Your task to perform on an android device: Search for Italian restaurants on Maps Image 0: 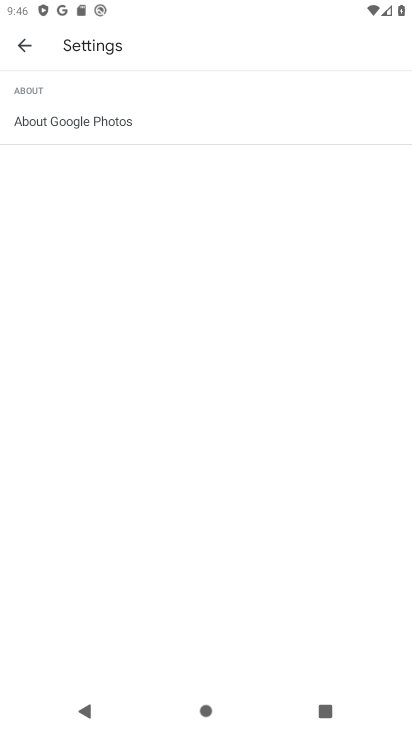
Step 0: press home button
Your task to perform on an android device: Search for Italian restaurants on Maps Image 1: 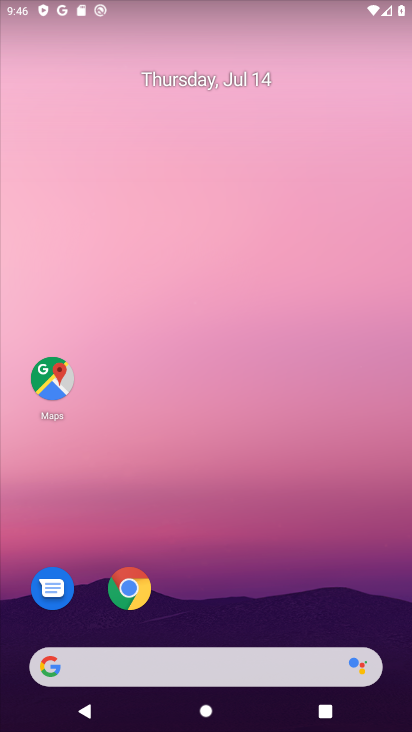
Step 1: click (52, 385)
Your task to perform on an android device: Search for Italian restaurants on Maps Image 2: 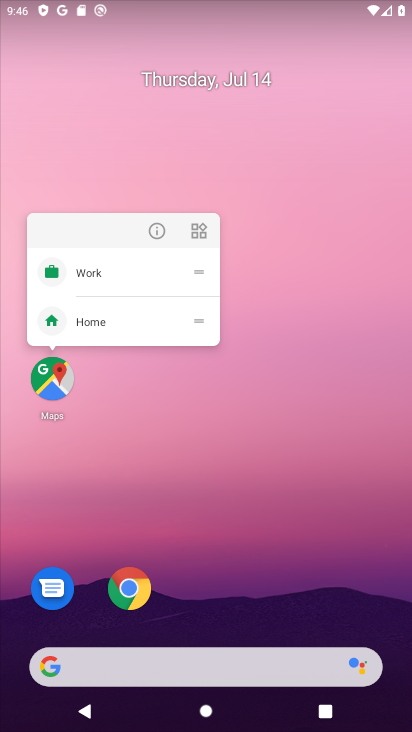
Step 2: click (52, 383)
Your task to perform on an android device: Search for Italian restaurants on Maps Image 3: 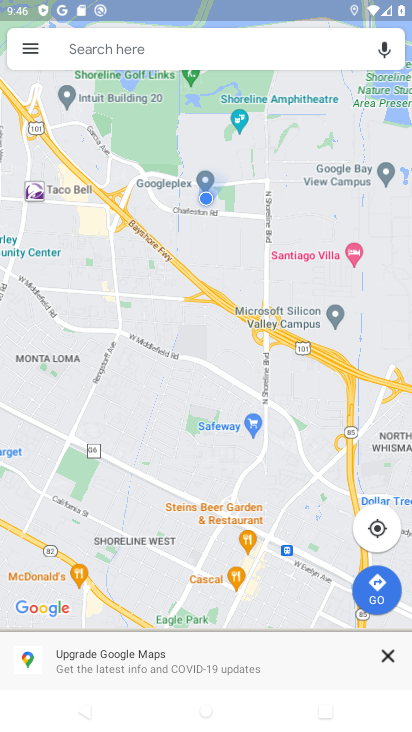
Step 3: click (215, 50)
Your task to perform on an android device: Search for Italian restaurants on Maps Image 4: 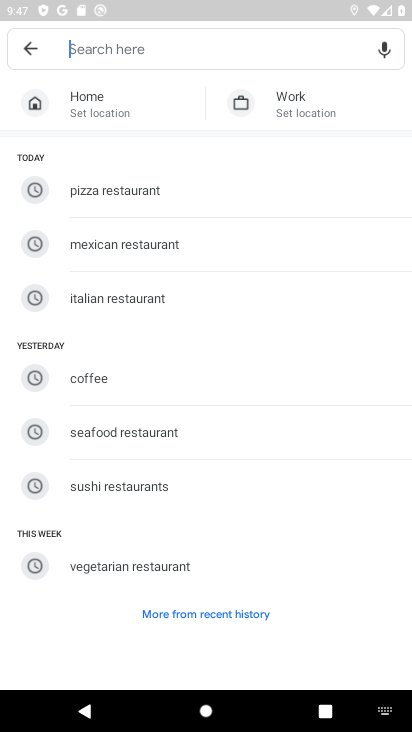
Step 4: click (124, 295)
Your task to perform on an android device: Search for Italian restaurants on Maps Image 5: 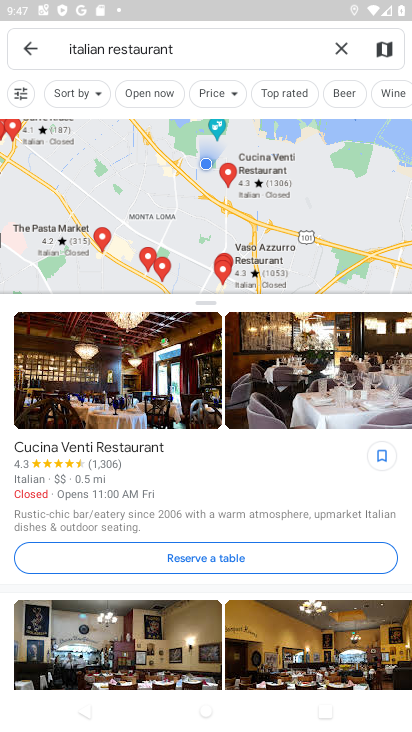
Step 5: task complete